Your task to perform on an android device: Open the gallery Image 0: 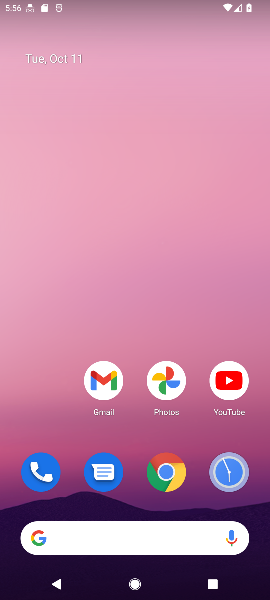
Step 0: click (178, 388)
Your task to perform on an android device: Open the gallery Image 1: 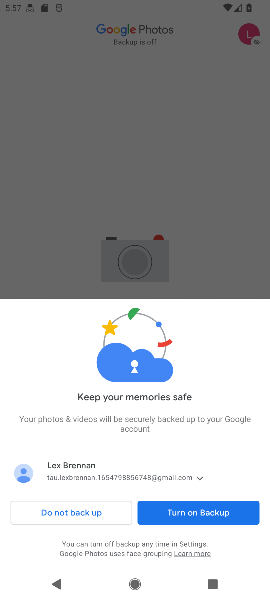
Step 1: click (83, 517)
Your task to perform on an android device: Open the gallery Image 2: 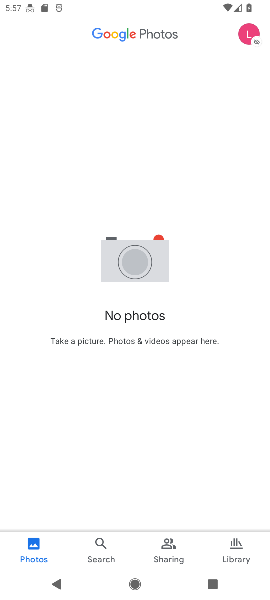
Step 2: task complete